Your task to perform on an android device: Turn off the flashlight Image 0: 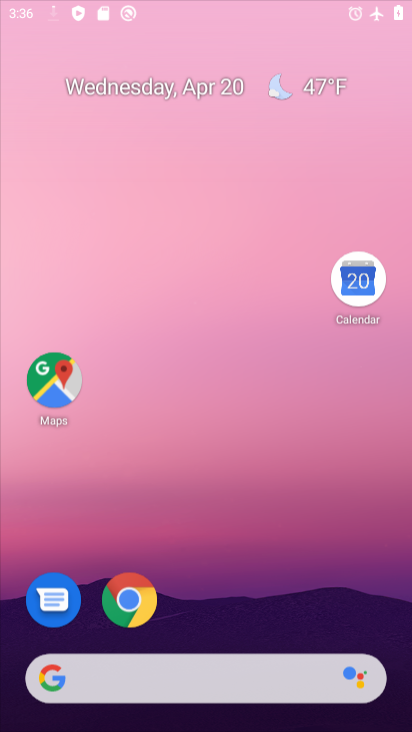
Step 0: press home button
Your task to perform on an android device: Turn off the flashlight Image 1: 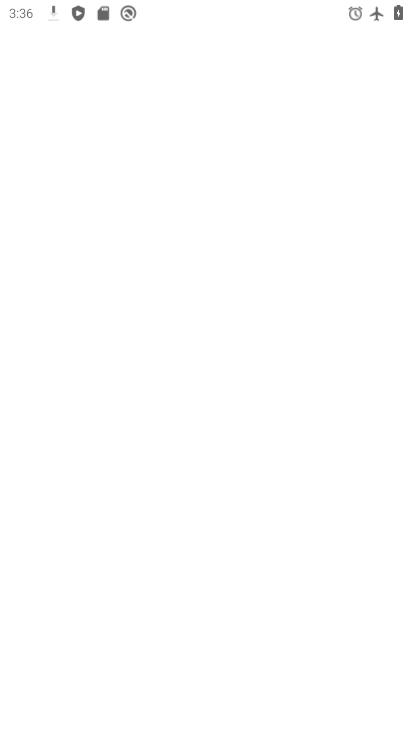
Step 1: click (306, 292)
Your task to perform on an android device: Turn off the flashlight Image 2: 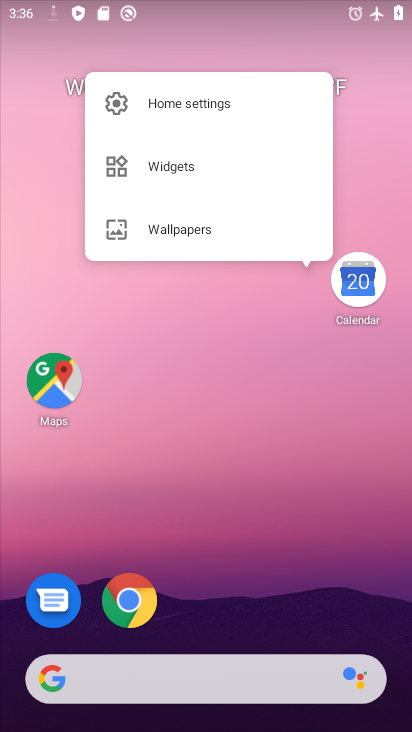
Step 2: click (190, 471)
Your task to perform on an android device: Turn off the flashlight Image 3: 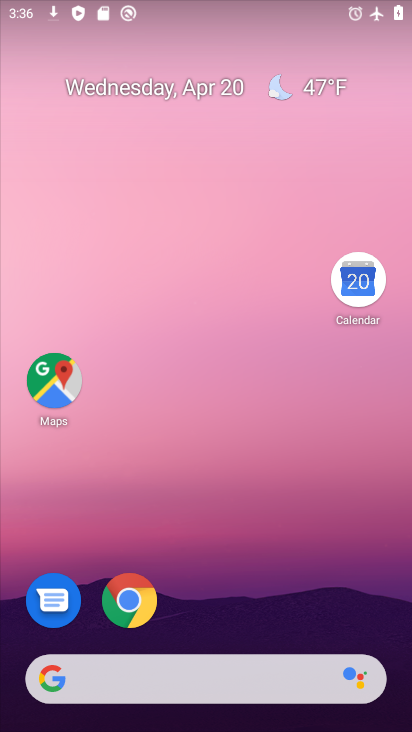
Step 3: drag from (228, 561) to (246, 266)
Your task to perform on an android device: Turn off the flashlight Image 4: 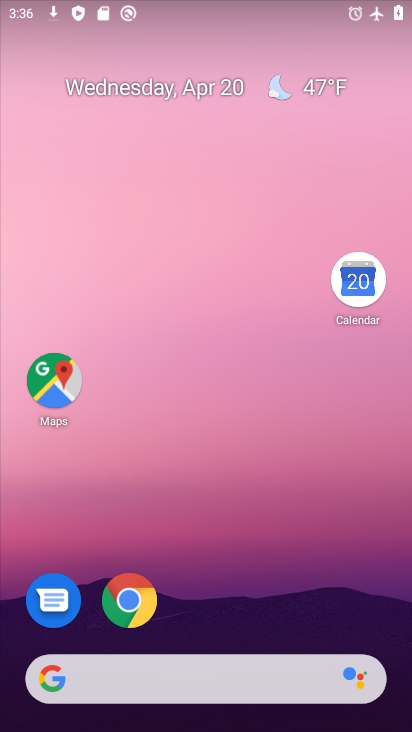
Step 4: drag from (258, 537) to (298, 206)
Your task to perform on an android device: Turn off the flashlight Image 5: 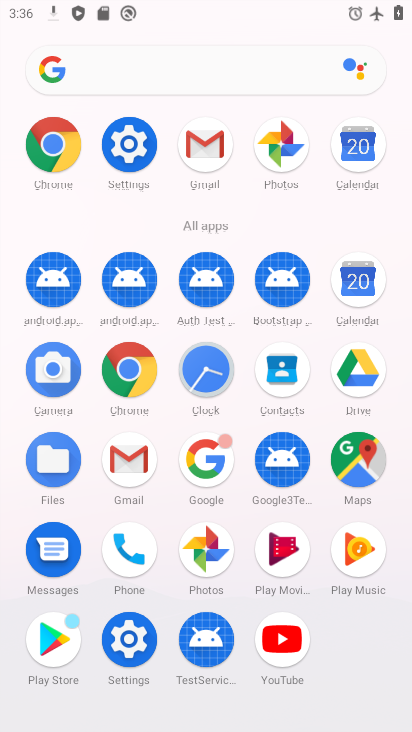
Step 5: click (115, 142)
Your task to perform on an android device: Turn off the flashlight Image 6: 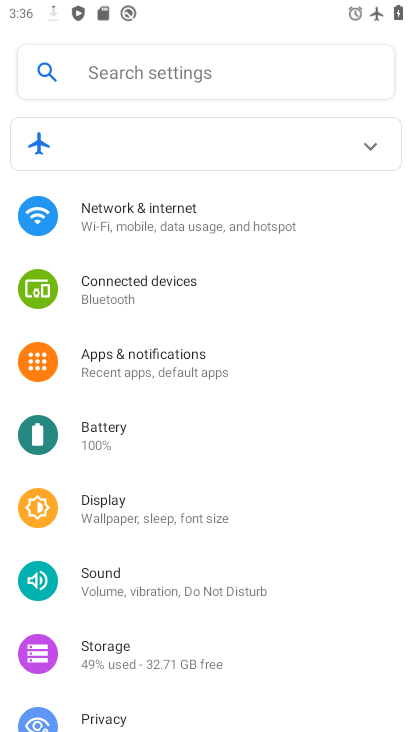
Step 6: drag from (230, 659) to (307, 156)
Your task to perform on an android device: Turn off the flashlight Image 7: 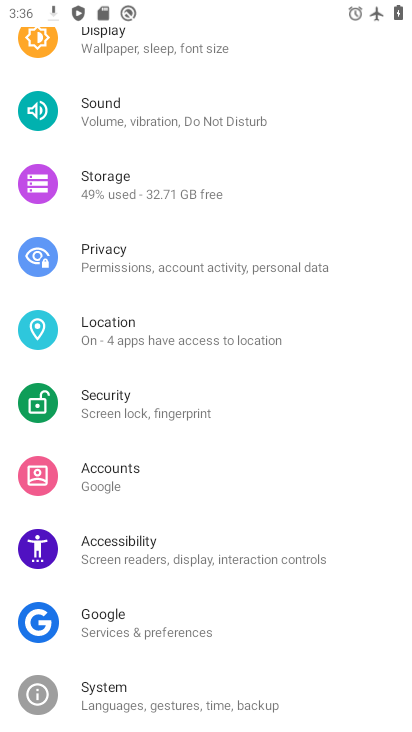
Step 7: click (208, 623)
Your task to perform on an android device: Turn off the flashlight Image 8: 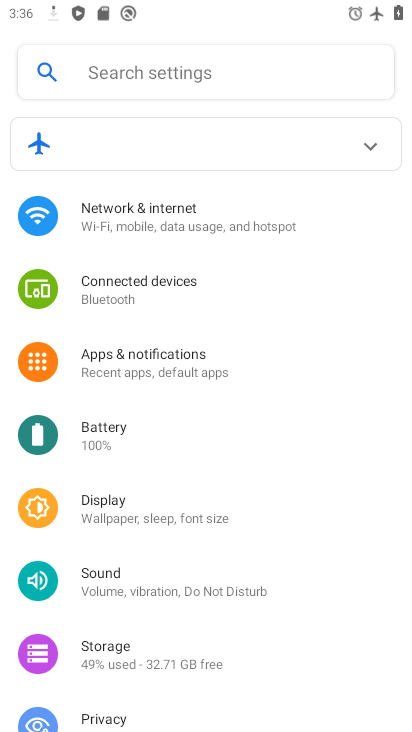
Step 8: task complete